Your task to perform on an android device: change alarm snooze length Image 0: 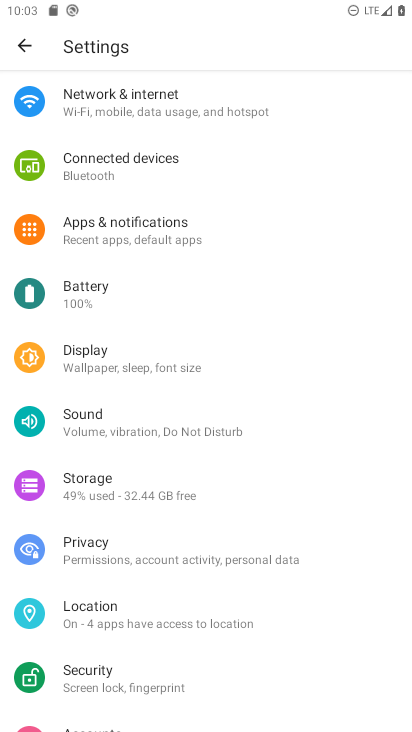
Step 0: press home button
Your task to perform on an android device: change alarm snooze length Image 1: 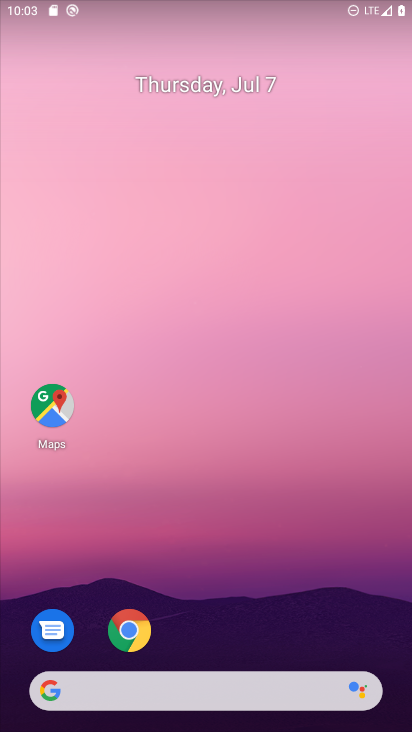
Step 1: drag from (195, 632) to (165, 132)
Your task to perform on an android device: change alarm snooze length Image 2: 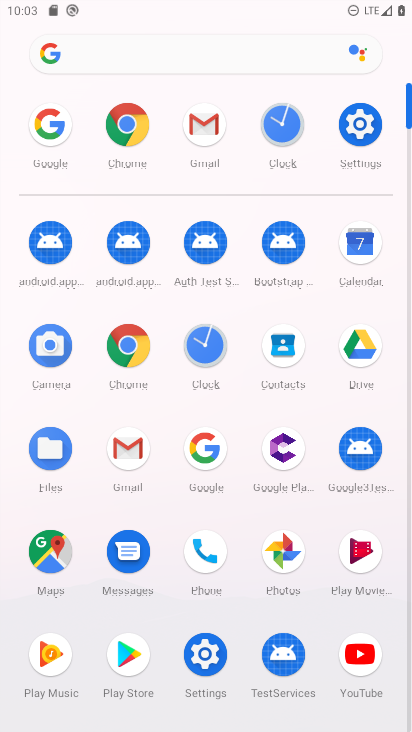
Step 2: click (290, 120)
Your task to perform on an android device: change alarm snooze length Image 3: 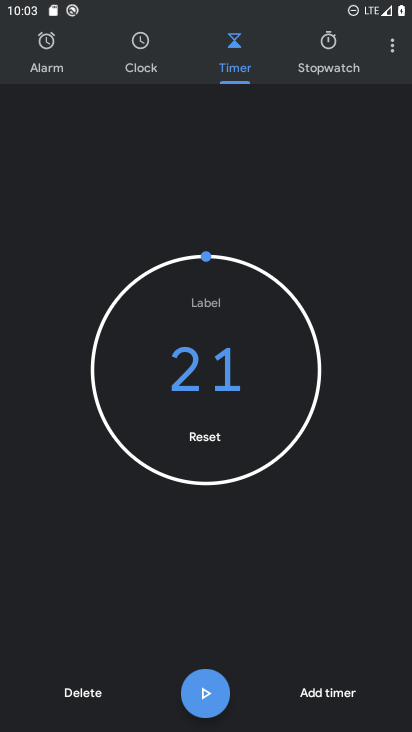
Step 3: click (391, 50)
Your task to perform on an android device: change alarm snooze length Image 4: 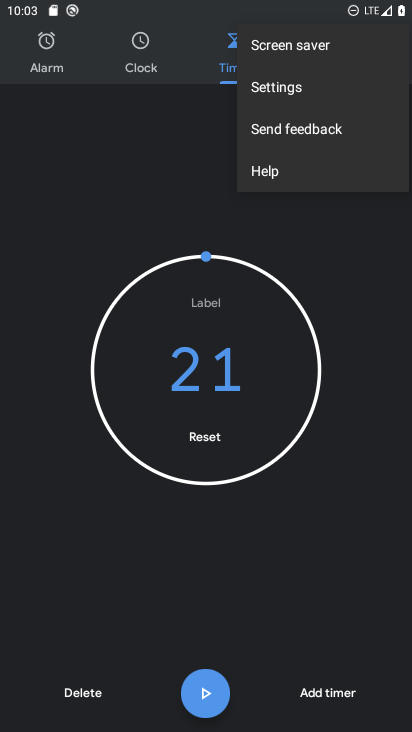
Step 4: click (329, 90)
Your task to perform on an android device: change alarm snooze length Image 5: 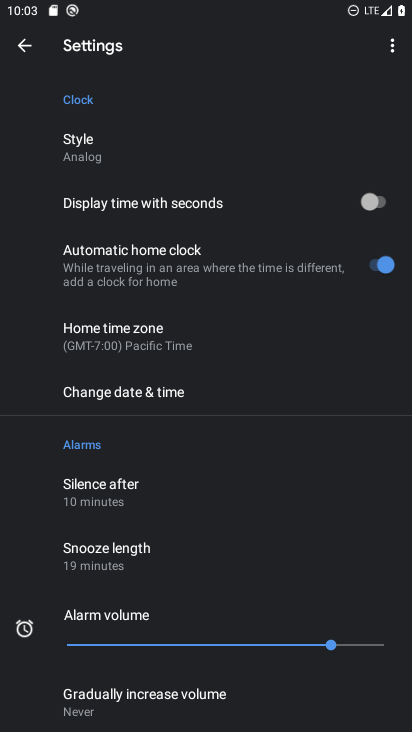
Step 5: click (127, 568)
Your task to perform on an android device: change alarm snooze length Image 6: 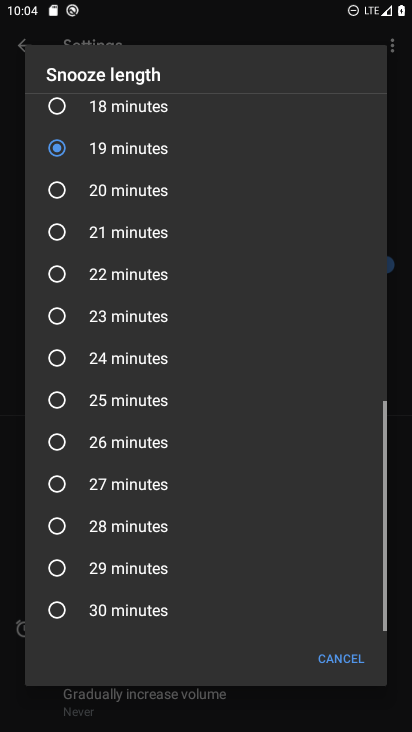
Step 6: click (138, 347)
Your task to perform on an android device: change alarm snooze length Image 7: 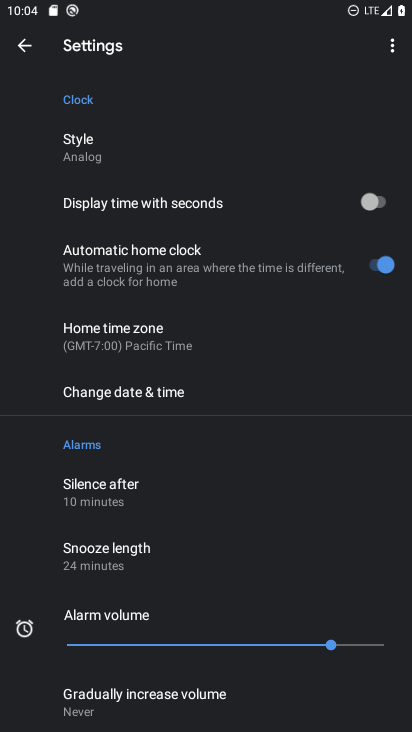
Step 7: click (176, 549)
Your task to perform on an android device: change alarm snooze length Image 8: 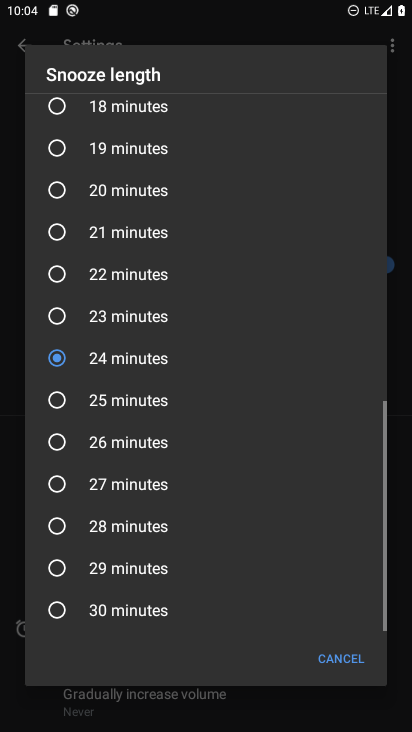
Step 8: click (160, 532)
Your task to perform on an android device: change alarm snooze length Image 9: 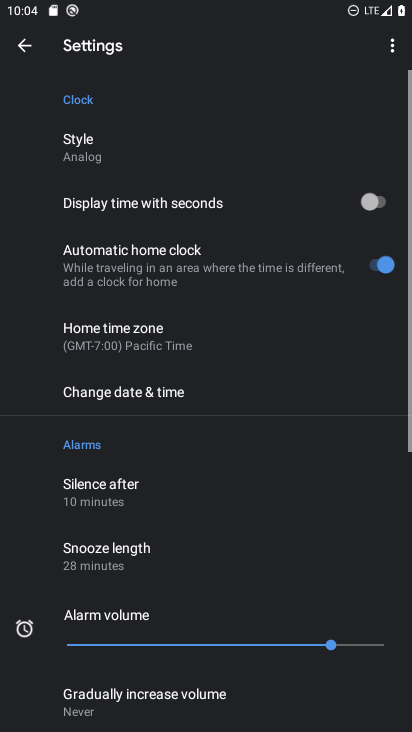
Step 9: task complete